Your task to perform on an android device: Open accessibility settings Image 0: 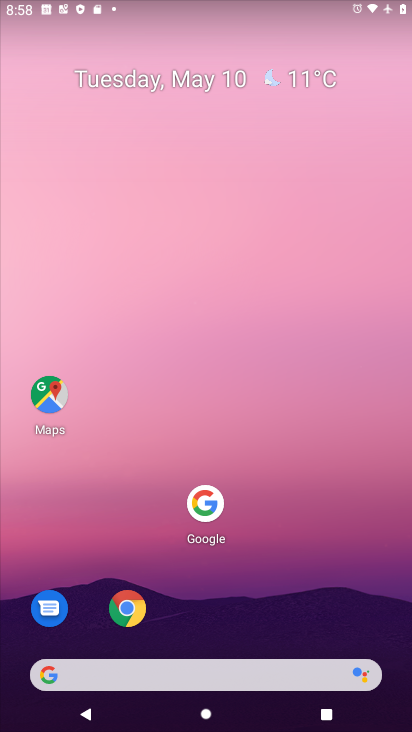
Step 0: drag from (187, 678) to (352, 372)
Your task to perform on an android device: Open accessibility settings Image 1: 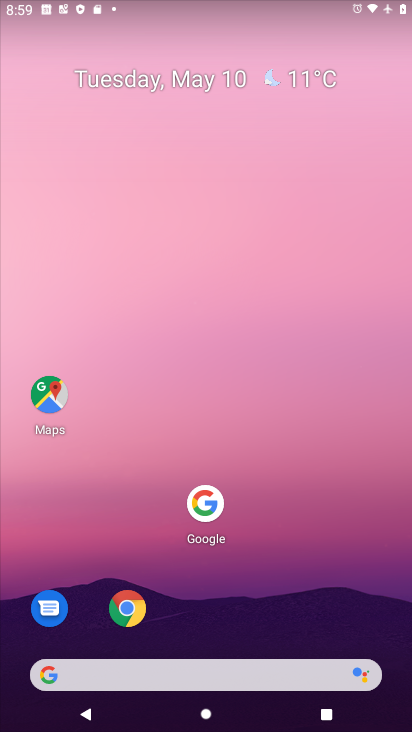
Step 1: drag from (230, 673) to (287, 183)
Your task to perform on an android device: Open accessibility settings Image 2: 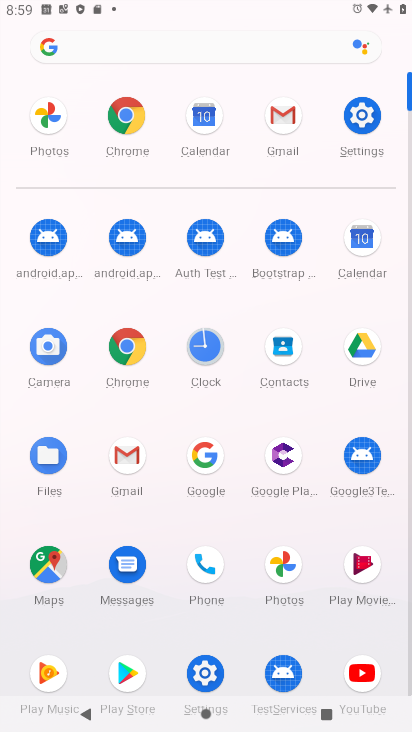
Step 2: click (369, 124)
Your task to perform on an android device: Open accessibility settings Image 3: 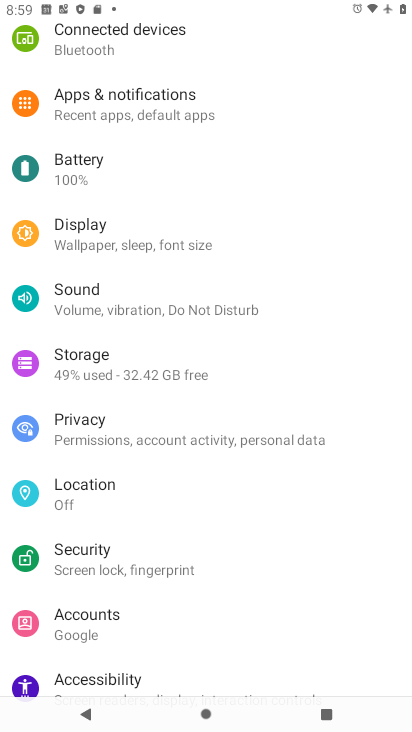
Step 3: click (86, 677)
Your task to perform on an android device: Open accessibility settings Image 4: 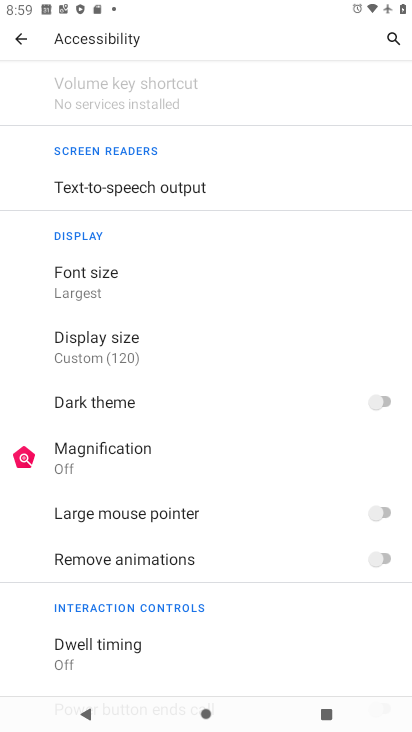
Step 4: task complete